Your task to perform on an android device: Search for Italian restaurants on Maps Image 0: 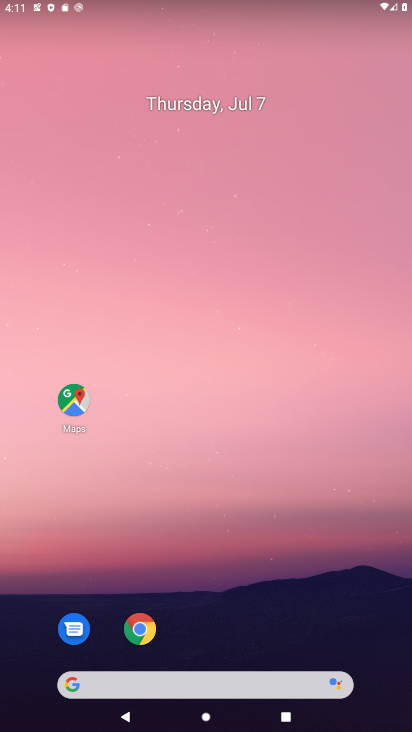
Step 0: drag from (202, 652) to (202, 436)
Your task to perform on an android device: Search for Italian restaurants on Maps Image 1: 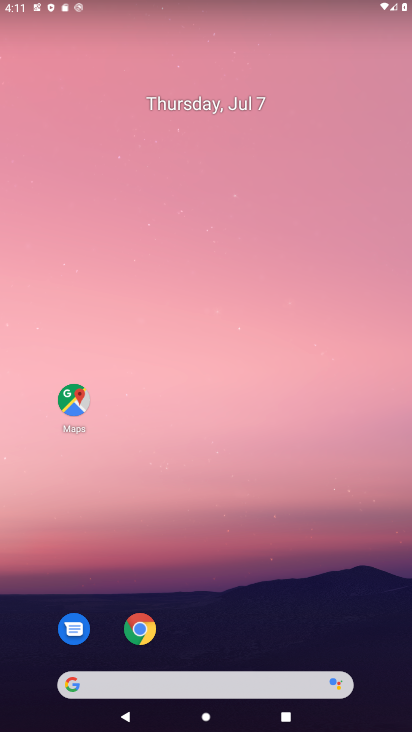
Step 1: drag from (233, 583) to (234, 388)
Your task to perform on an android device: Search for Italian restaurants on Maps Image 2: 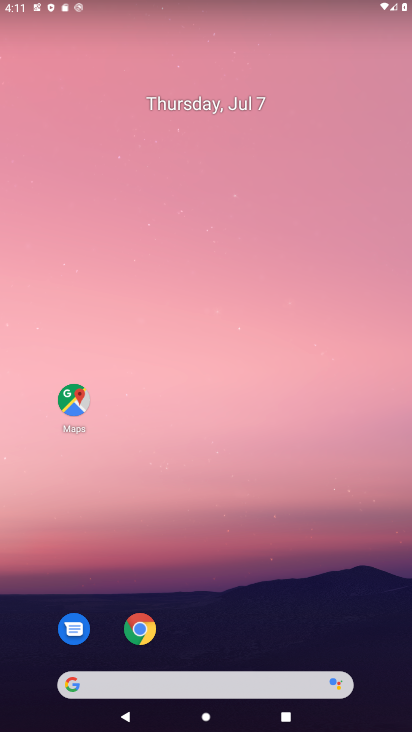
Step 2: drag from (222, 526) to (242, 205)
Your task to perform on an android device: Search for Italian restaurants on Maps Image 3: 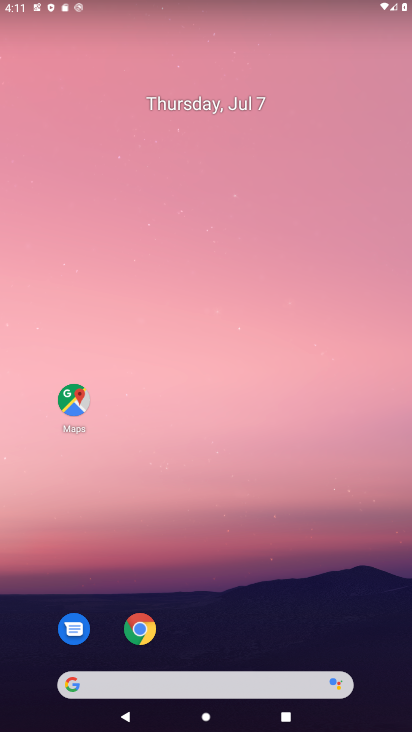
Step 3: drag from (206, 673) to (208, 220)
Your task to perform on an android device: Search for Italian restaurants on Maps Image 4: 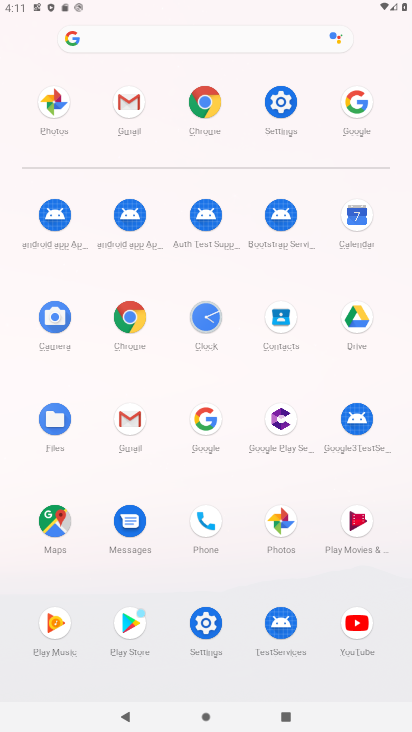
Step 4: click (59, 517)
Your task to perform on an android device: Search for Italian restaurants on Maps Image 5: 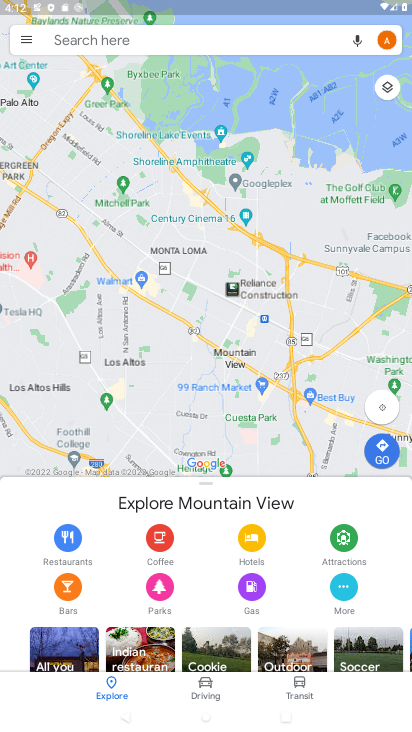
Step 5: click (267, 46)
Your task to perform on an android device: Search for Italian restaurants on Maps Image 6: 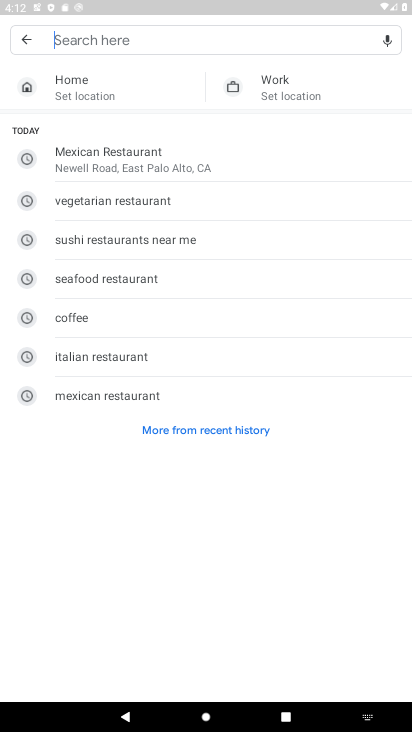
Step 6: type "Italian restaurants "
Your task to perform on an android device: Search for Italian restaurants on Maps Image 7: 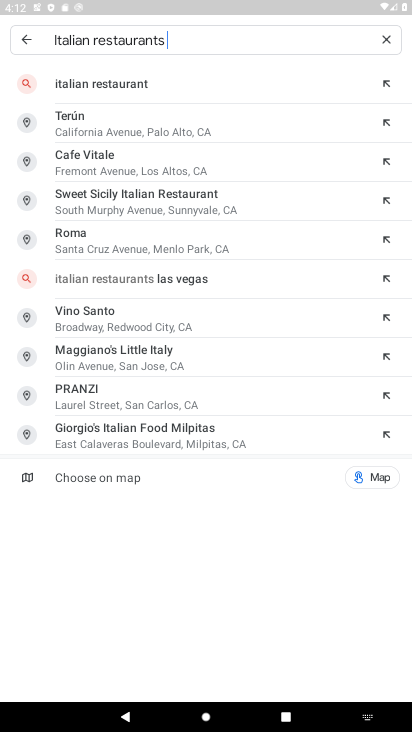
Step 7: click (120, 84)
Your task to perform on an android device: Search for Italian restaurants on Maps Image 8: 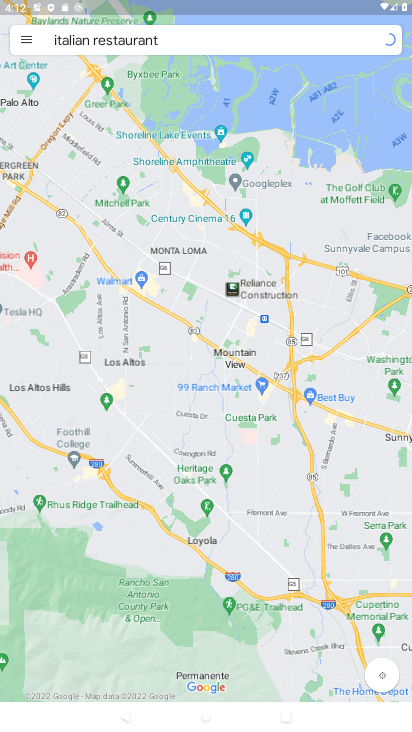
Step 8: task complete